Your task to perform on an android device: check storage Image 0: 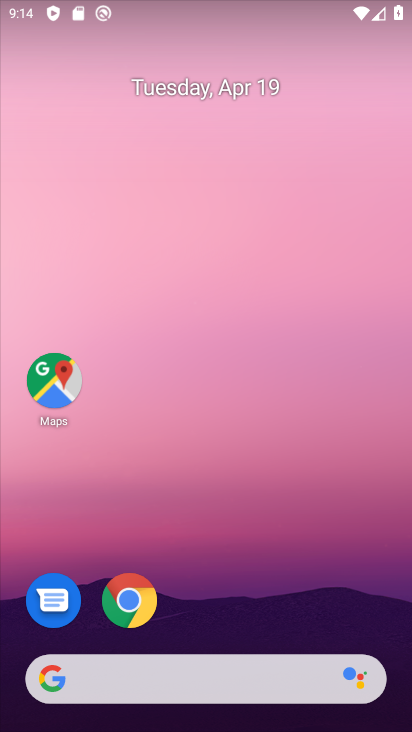
Step 0: drag from (369, 582) to (304, 137)
Your task to perform on an android device: check storage Image 1: 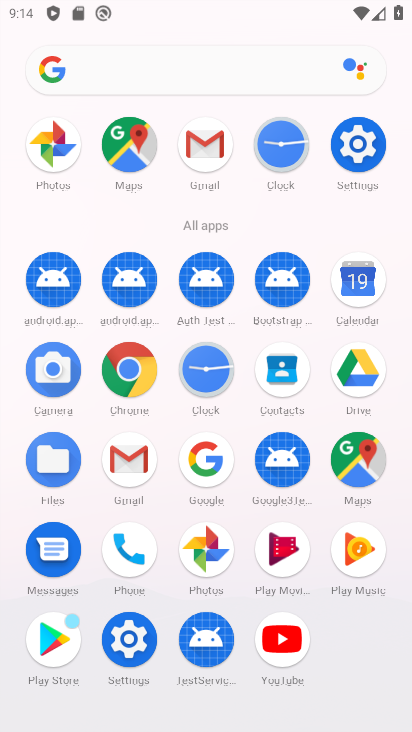
Step 1: click (349, 141)
Your task to perform on an android device: check storage Image 2: 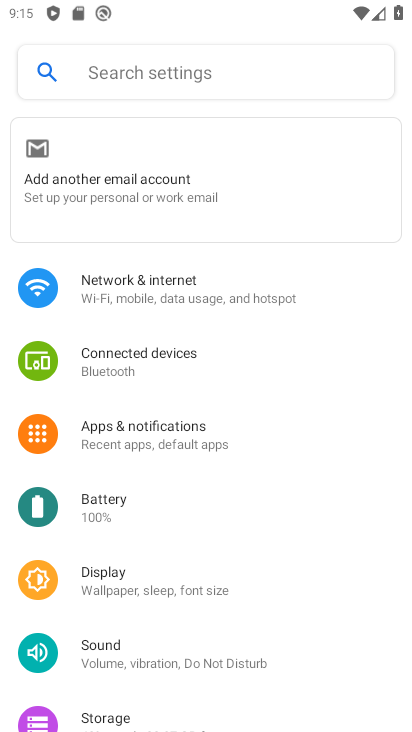
Step 2: click (284, 720)
Your task to perform on an android device: check storage Image 3: 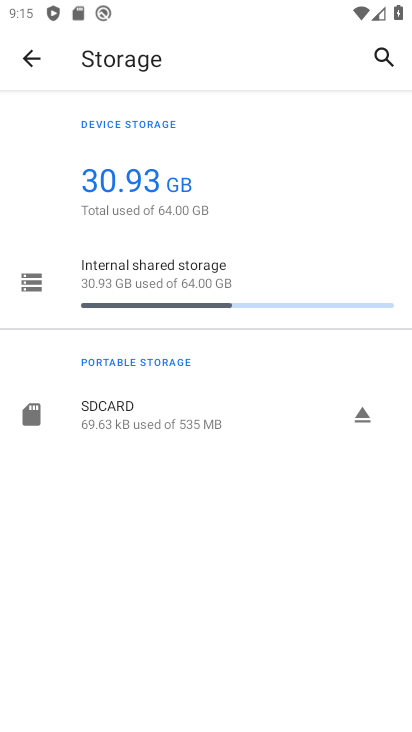
Step 3: task complete